Your task to perform on an android device: Open Yahoo.com Image 0: 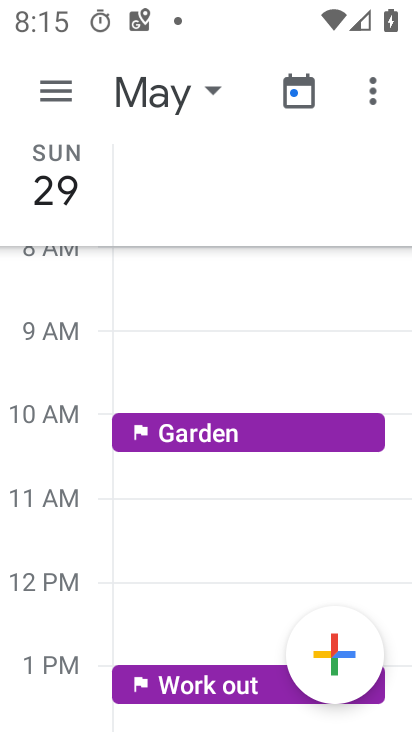
Step 0: press home button
Your task to perform on an android device: Open Yahoo.com Image 1: 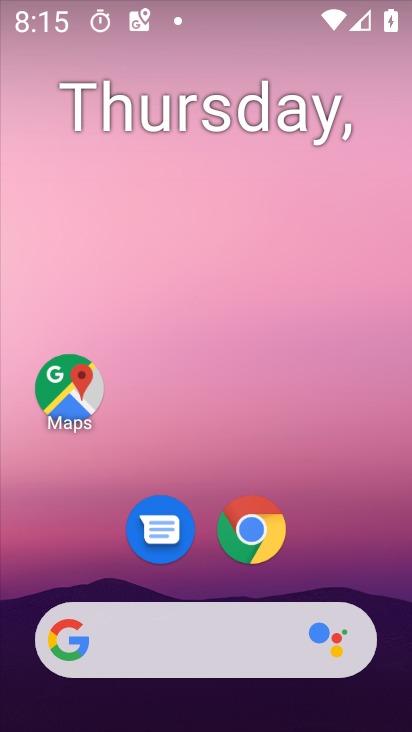
Step 1: click (259, 535)
Your task to perform on an android device: Open Yahoo.com Image 2: 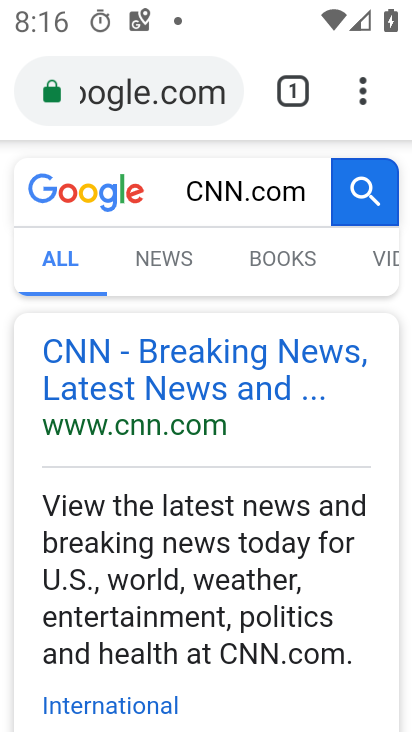
Step 2: click (224, 92)
Your task to perform on an android device: Open Yahoo.com Image 3: 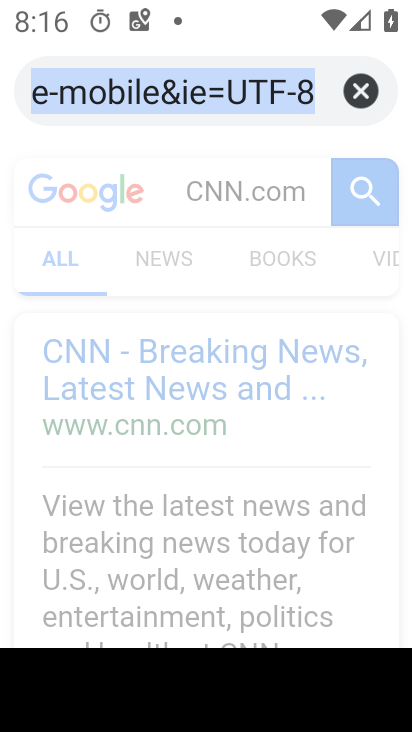
Step 3: click (370, 81)
Your task to perform on an android device: Open Yahoo.com Image 4: 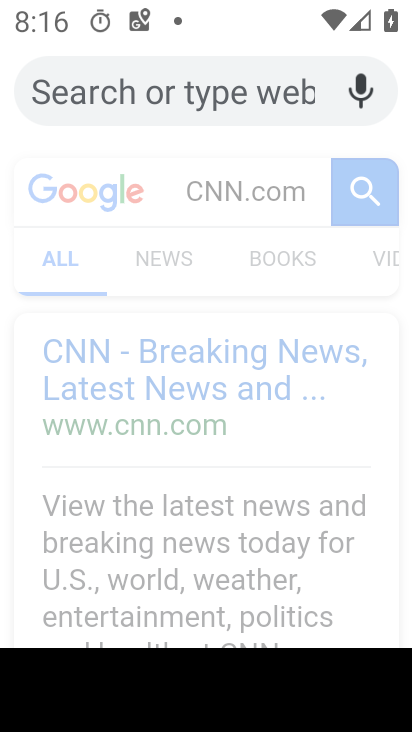
Step 4: type "Yahoo.com"
Your task to perform on an android device: Open Yahoo.com Image 5: 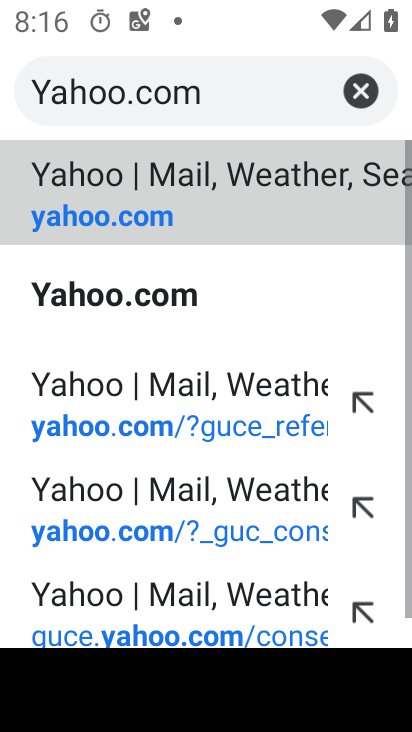
Step 5: click (93, 295)
Your task to perform on an android device: Open Yahoo.com Image 6: 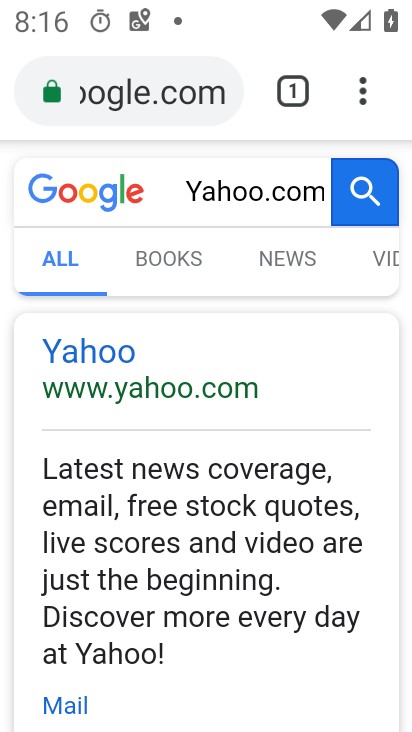
Step 6: task complete